Your task to perform on an android device: delete the emails in spam in the gmail app Image 0: 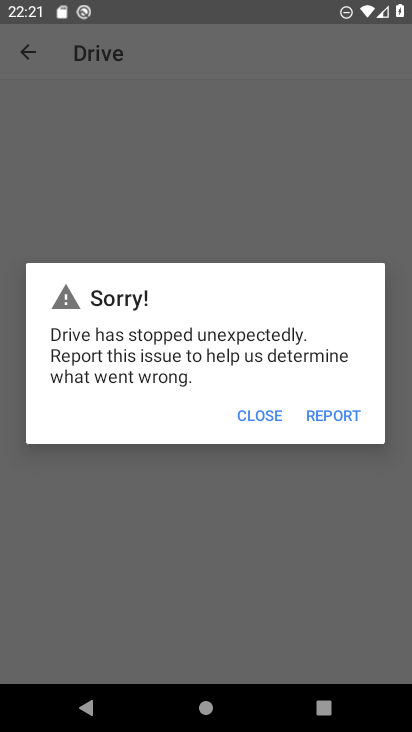
Step 0: press home button
Your task to perform on an android device: delete the emails in spam in the gmail app Image 1: 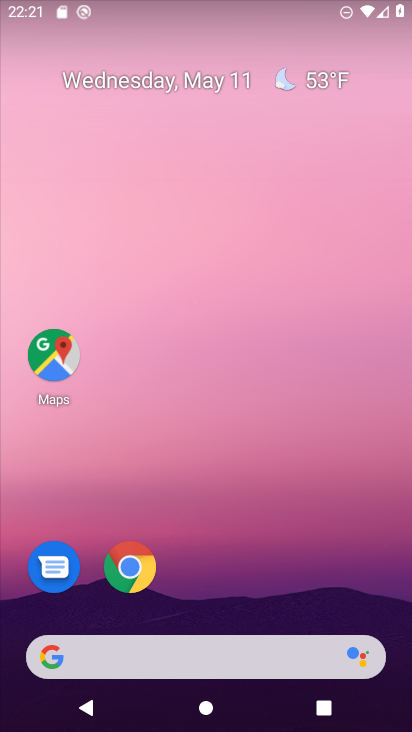
Step 1: drag from (267, 695) to (307, 193)
Your task to perform on an android device: delete the emails in spam in the gmail app Image 2: 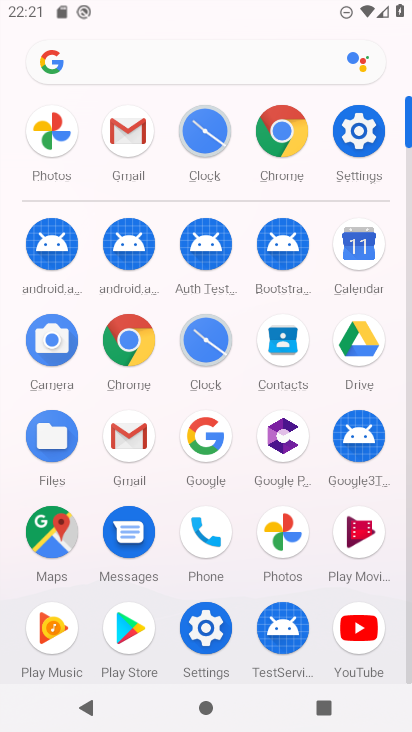
Step 2: click (124, 141)
Your task to perform on an android device: delete the emails in spam in the gmail app Image 3: 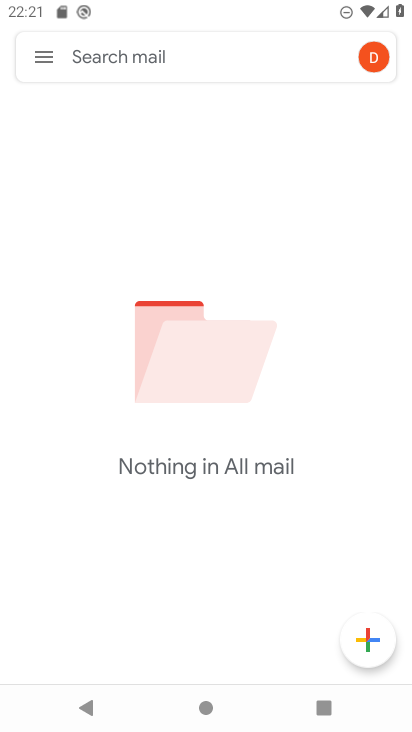
Step 3: click (40, 58)
Your task to perform on an android device: delete the emails in spam in the gmail app Image 4: 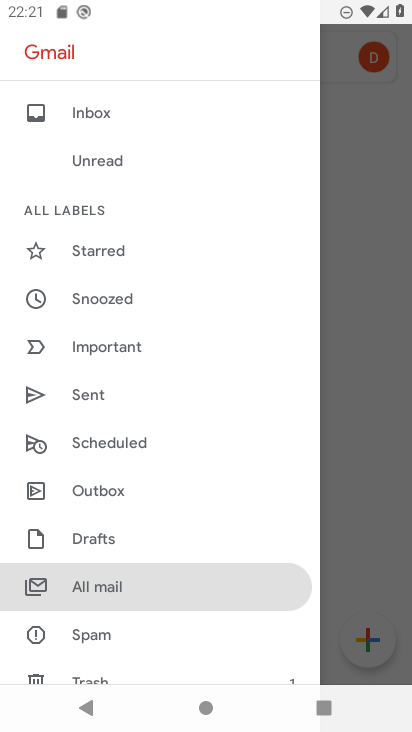
Step 4: click (101, 649)
Your task to perform on an android device: delete the emails in spam in the gmail app Image 5: 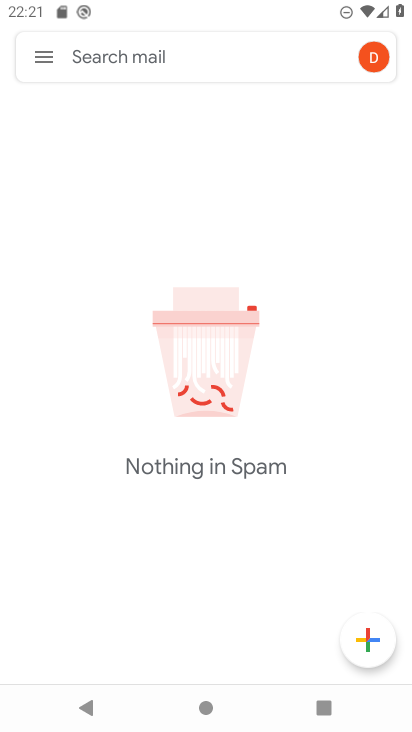
Step 5: task complete